Your task to perform on an android device: Open maps Image 0: 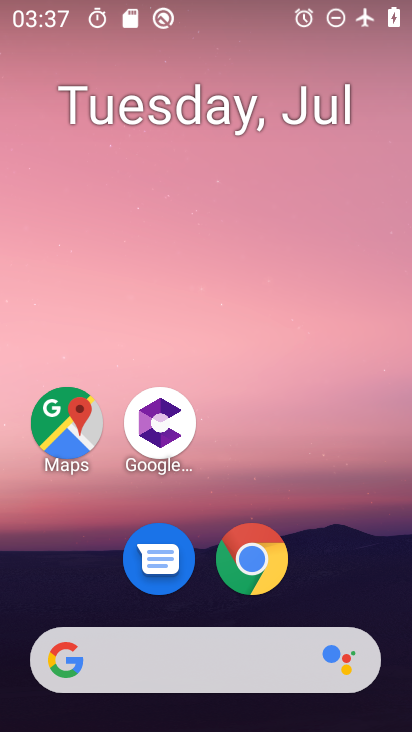
Step 0: press home button
Your task to perform on an android device: Open maps Image 1: 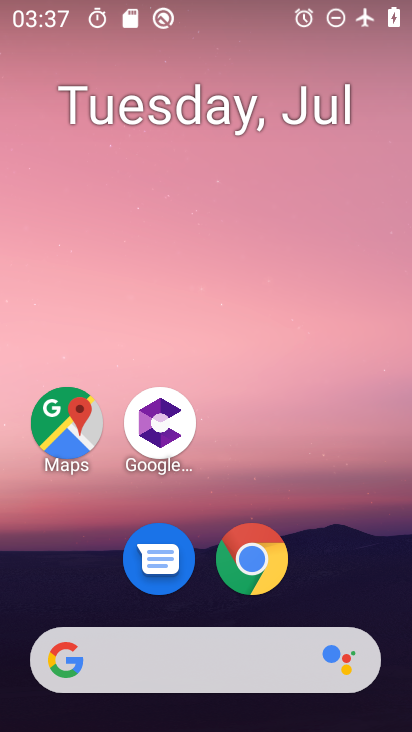
Step 1: drag from (353, 561) to (379, 120)
Your task to perform on an android device: Open maps Image 2: 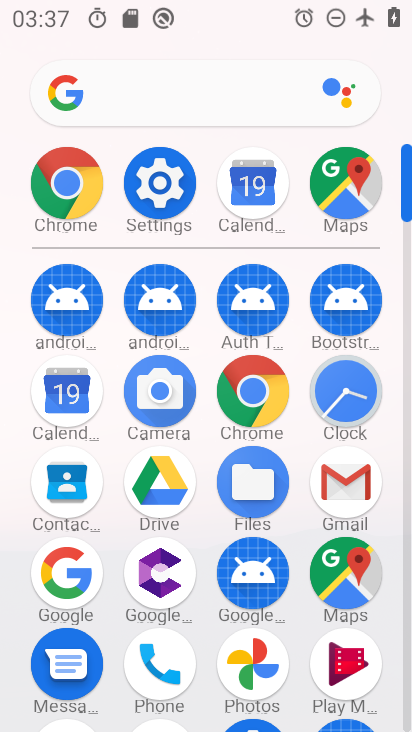
Step 2: click (338, 198)
Your task to perform on an android device: Open maps Image 3: 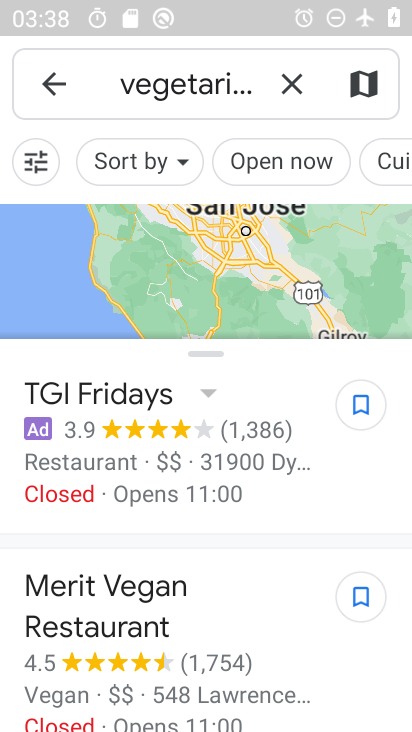
Step 3: task complete